Your task to perform on an android device: change the clock style Image 0: 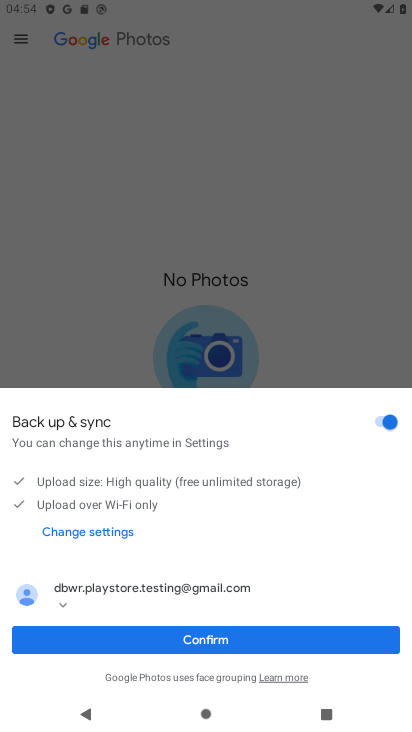
Step 0: press home button
Your task to perform on an android device: change the clock style Image 1: 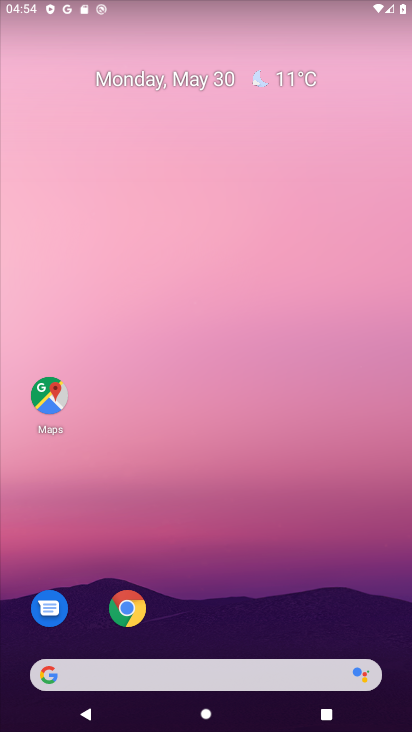
Step 1: drag from (200, 663) to (218, 298)
Your task to perform on an android device: change the clock style Image 2: 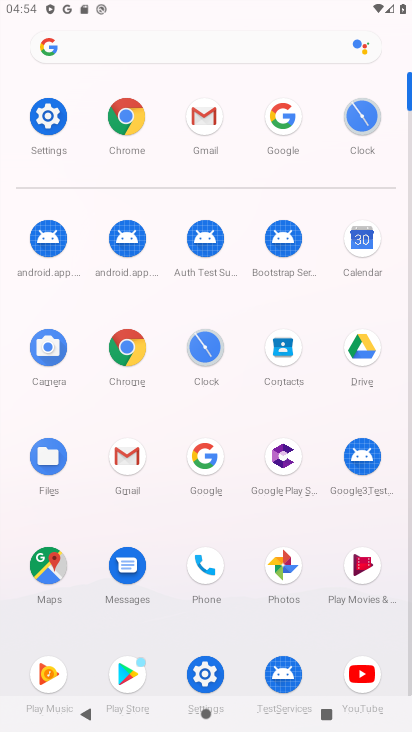
Step 2: click (200, 355)
Your task to perform on an android device: change the clock style Image 3: 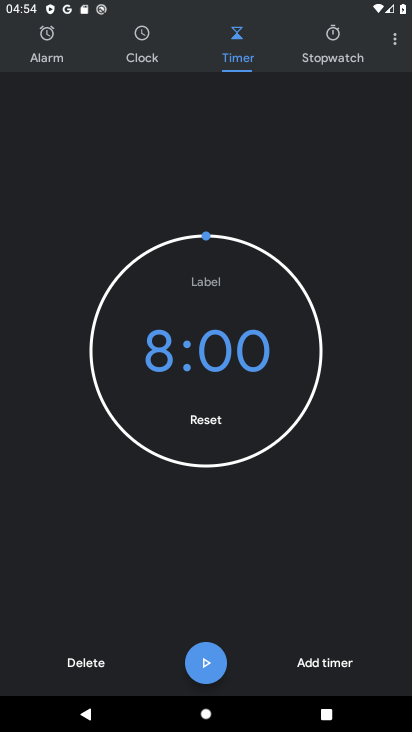
Step 3: click (389, 44)
Your task to perform on an android device: change the clock style Image 4: 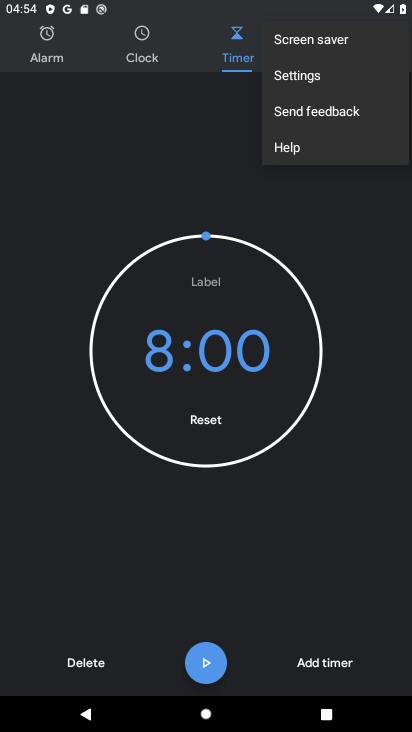
Step 4: click (284, 81)
Your task to perform on an android device: change the clock style Image 5: 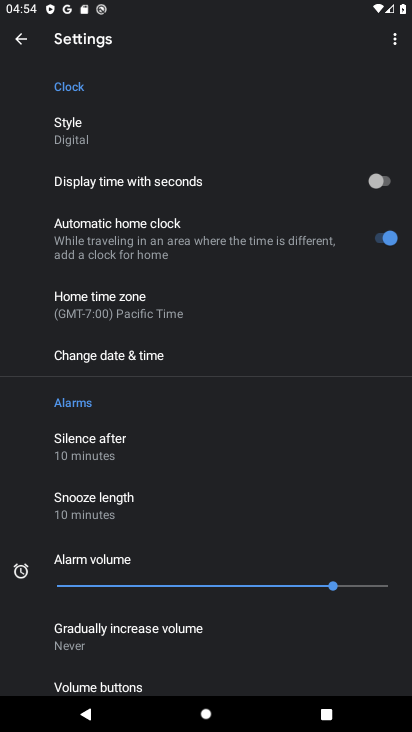
Step 5: click (90, 127)
Your task to perform on an android device: change the clock style Image 6: 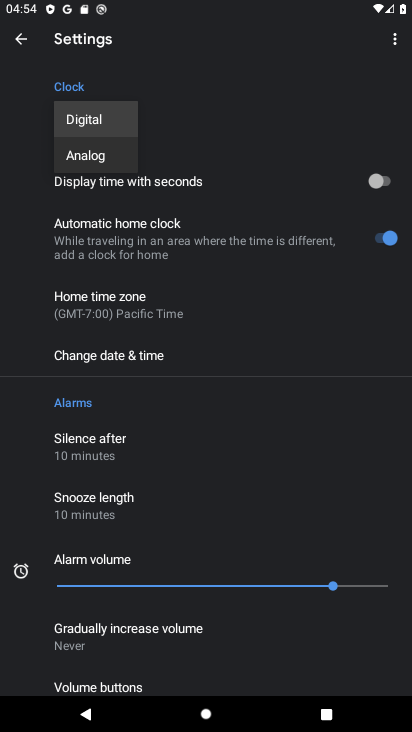
Step 6: click (110, 158)
Your task to perform on an android device: change the clock style Image 7: 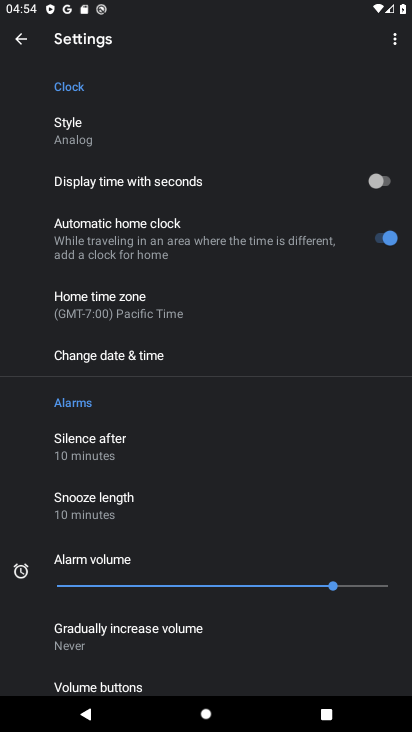
Step 7: task complete